Your task to perform on an android device: turn off translation in the chrome app Image 0: 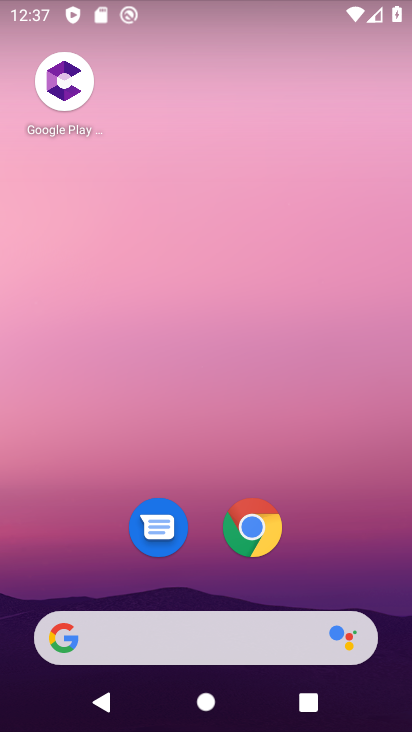
Step 0: click (259, 518)
Your task to perform on an android device: turn off translation in the chrome app Image 1: 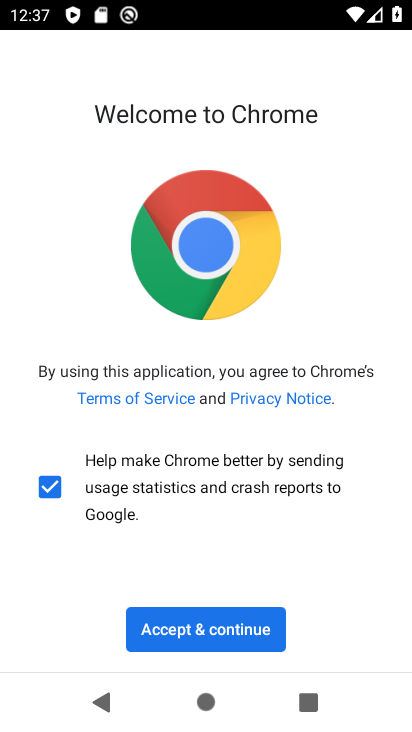
Step 1: click (213, 632)
Your task to perform on an android device: turn off translation in the chrome app Image 2: 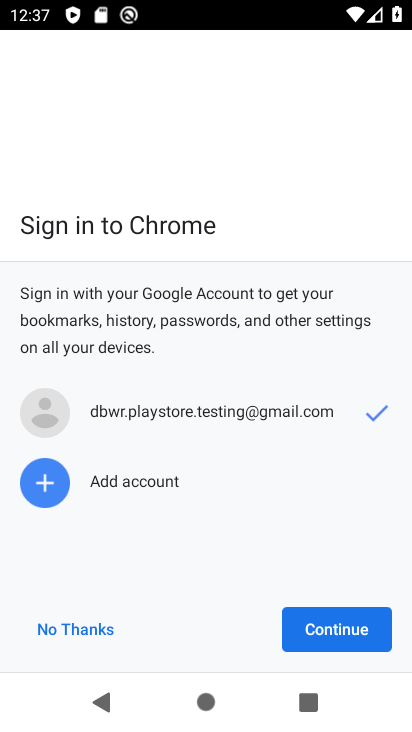
Step 2: click (339, 641)
Your task to perform on an android device: turn off translation in the chrome app Image 3: 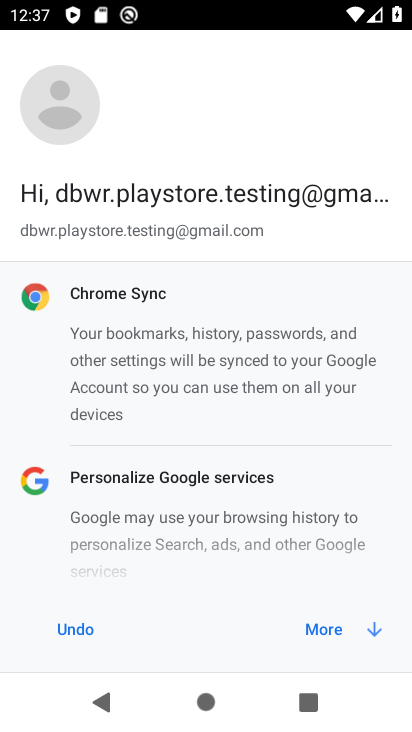
Step 3: click (355, 637)
Your task to perform on an android device: turn off translation in the chrome app Image 4: 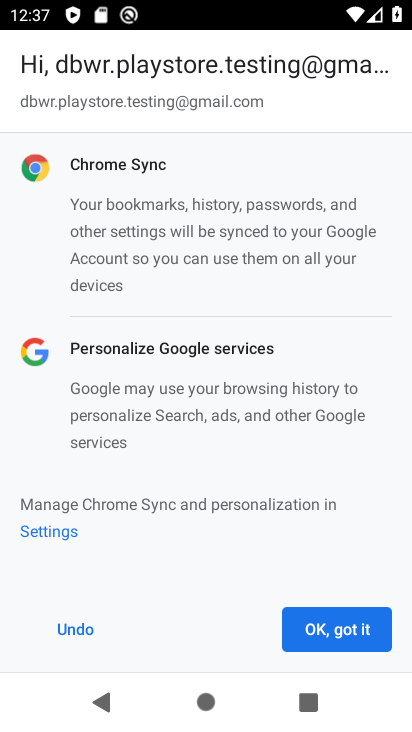
Step 4: click (355, 637)
Your task to perform on an android device: turn off translation in the chrome app Image 5: 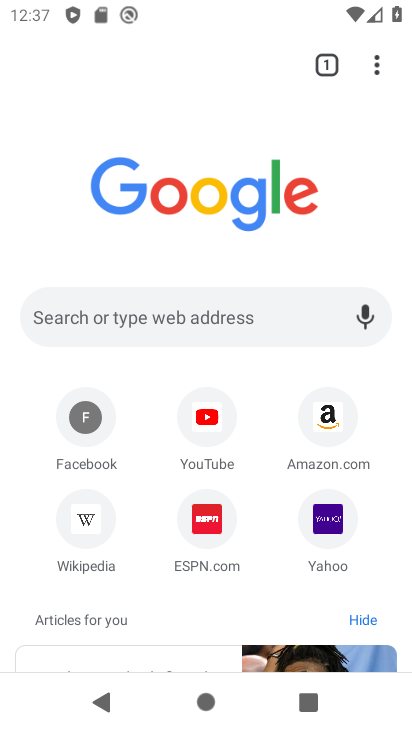
Step 5: click (372, 70)
Your task to perform on an android device: turn off translation in the chrome app Image 6: 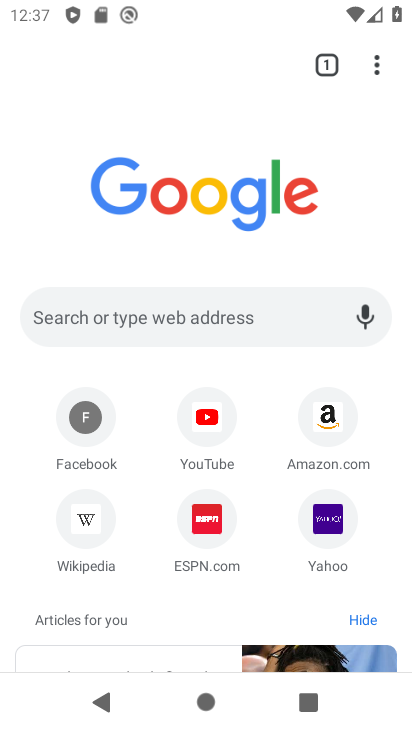
Step 6: click (372, 76)
Your task to perform on an android device: turn off translation in the chrome app Image 7: 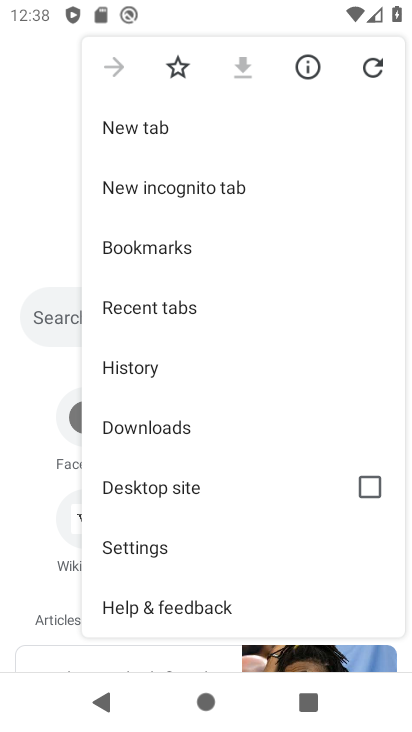
Step 7: click (216, 548)
Your task to perform on an android device: turn off translation in the chrome app Image 8: 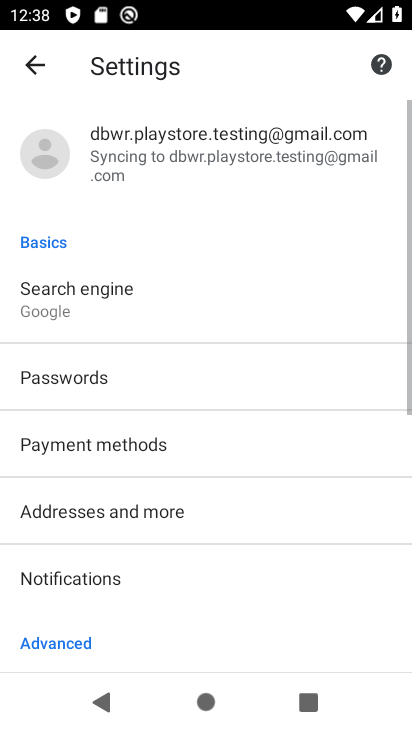
Step 8: drag from (204, 604) to (214, 413)
Your task to perform on an android device: turn off translation in the chrome app Image 9: 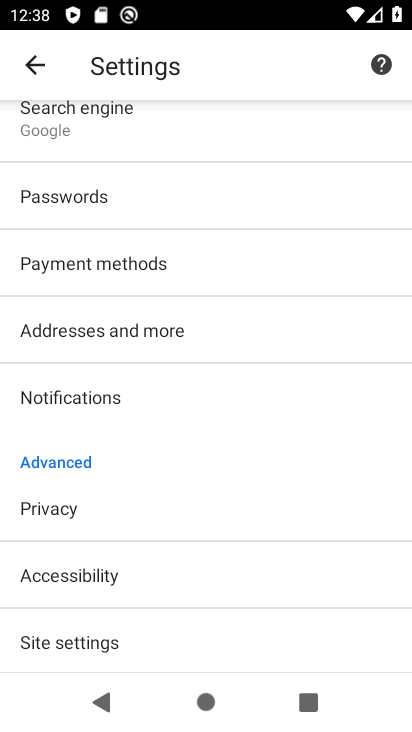
Step 9: drag from (235, 462) to (249, 398)
Your task to perform on an android device: turn off translation in the chrome app Image 10: 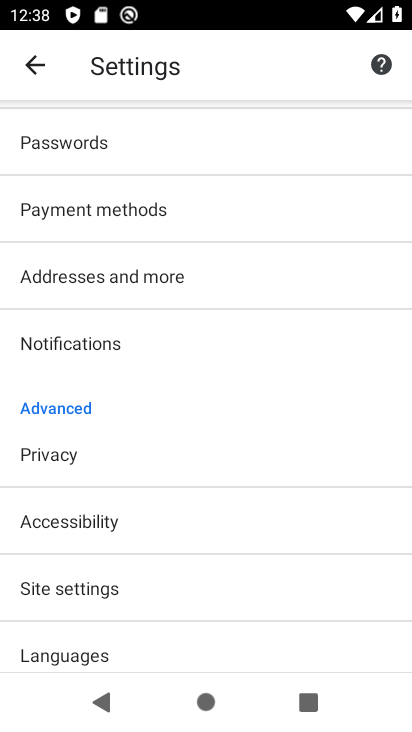
Step 10: click (116, 656)
Your task to perform on an android device: turn off translation in the chrome app Image 11: 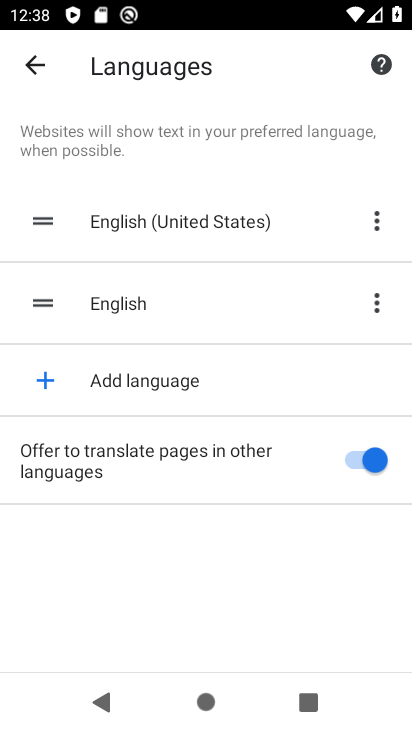
Step 11: click (357, 472)
Your task to perform on an android device: turn off translation in the chrome app Image 12: 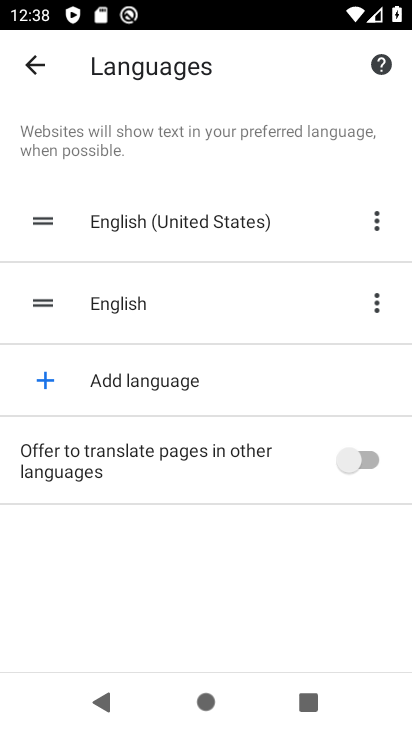
Step 12: task complete